Your task to perform on an android device: uninstall "WhatsApp Messenger" Image 0: 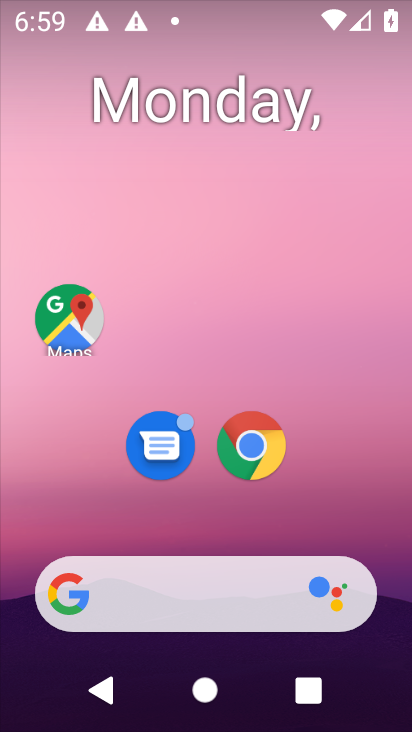
Step 0: drag from (400, 600) to (250, 46)
Your task to perform on an android device: uninstall "WhatsApp Messenger" Image 1: 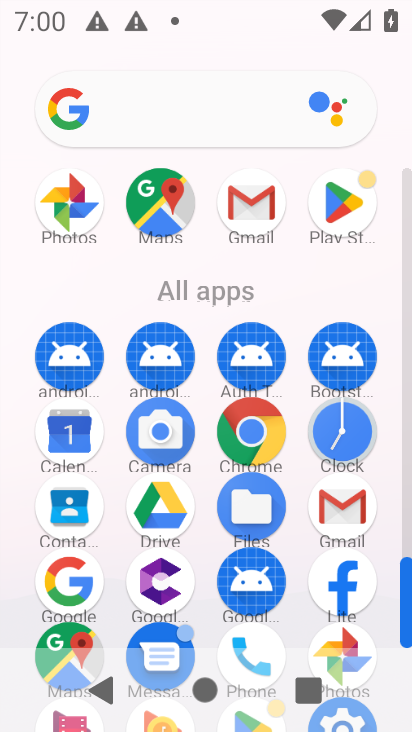
Step 1: click (340, 211)
Your task to perform on an android device: uninstall "WhatsApp Messenger" Image 2: 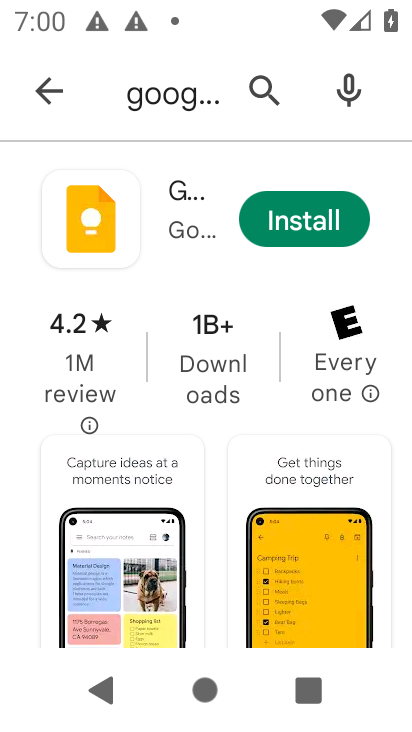
Step 2: press back button
Your task to perform on an android device: uninstall "WhatsApp Messenger" Image 3: 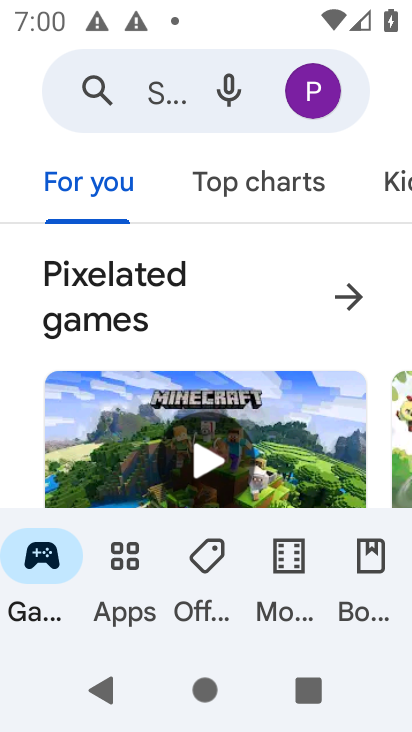
Step 3: click (151, 94)
Your task to perform on an android device: uninstall "WhatsApp Messenger" Image 4: 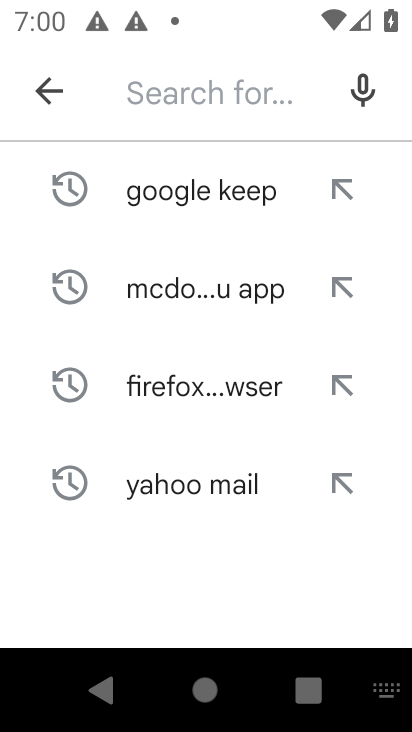
Step 4: type "WhatsApp Messenger"
Your task to perform on an android device: uninstall "WhatsApp Messenger" Image 5: 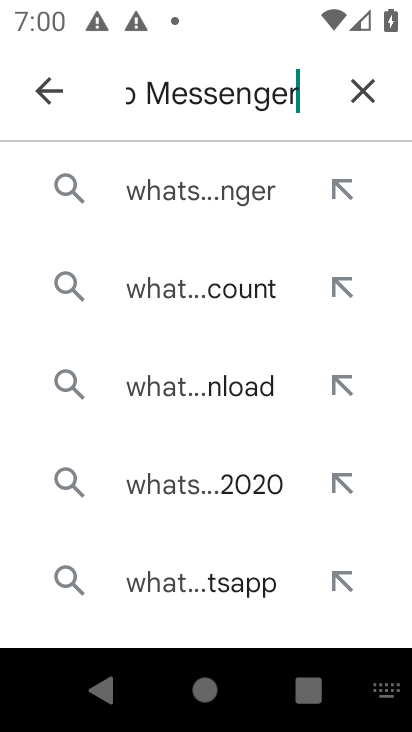
Step 5: click (150, 201)
Your task to perform on an android device: uninstall "WhatsApp Messenger" Image 6: 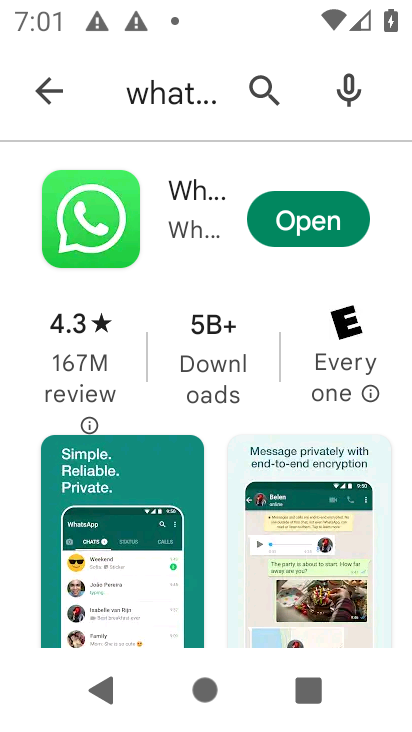
Step 6: click (212, 198)
Your task to perform on an android device: uninstall "WhatsApp Messenger" Image 7: 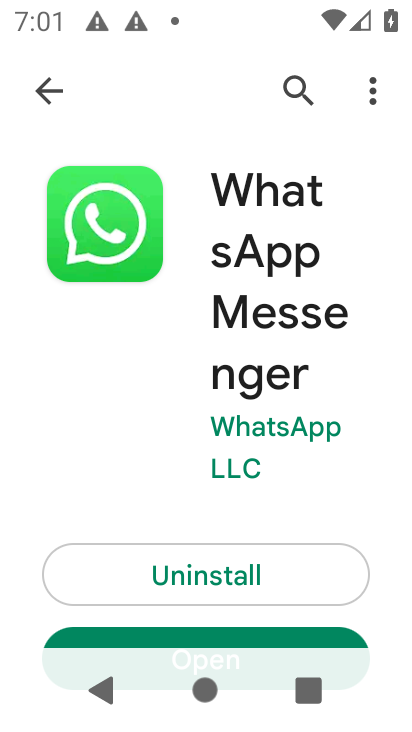
Step 7: click (232, 564)
Your task to perform on an android device: uninstall "WhatsApp Messenger" Image 8: 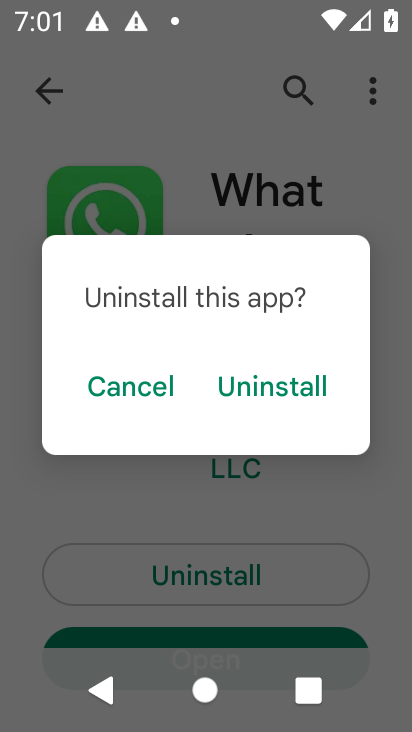
Step 8: click (262, 390)
Your task to perform on an android device: uninstall "WhatsApp Messenger" Image 9: 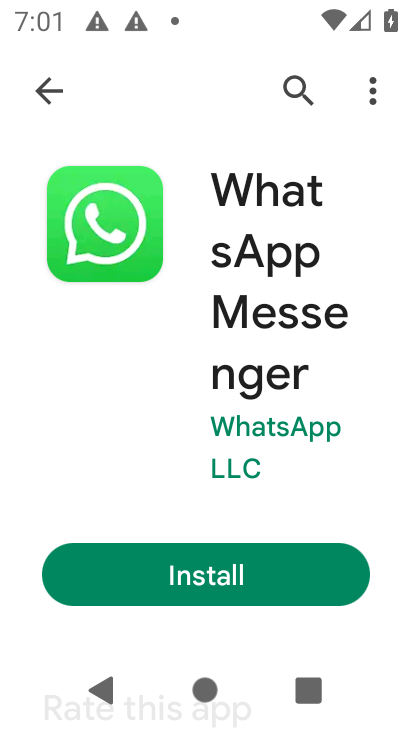
Step 9: task complete